Your task to perform on an android device: What's the weather? Image 0: 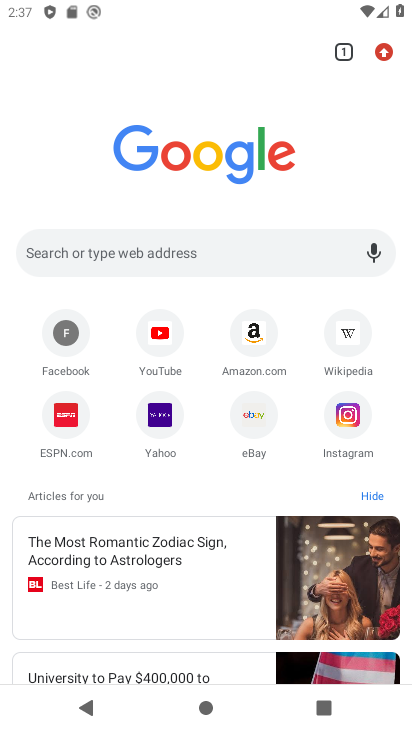
Step 0: click (382, 57)
Your task to perform on an android device: What's the weather? Image 1: 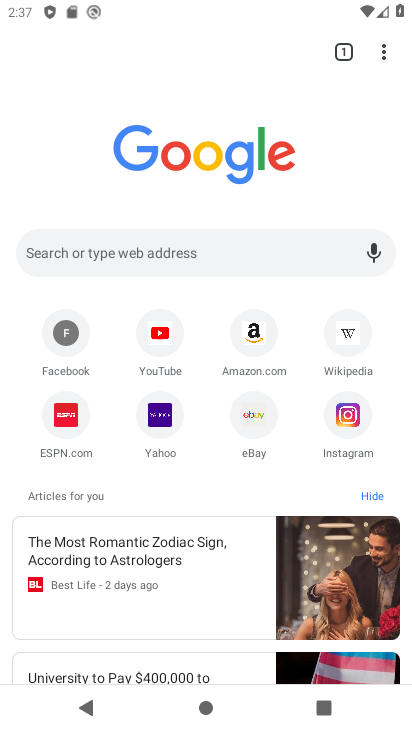
Step 1: click (383, 57)
Your task to perform on an android device: What's the weather? Image 2: 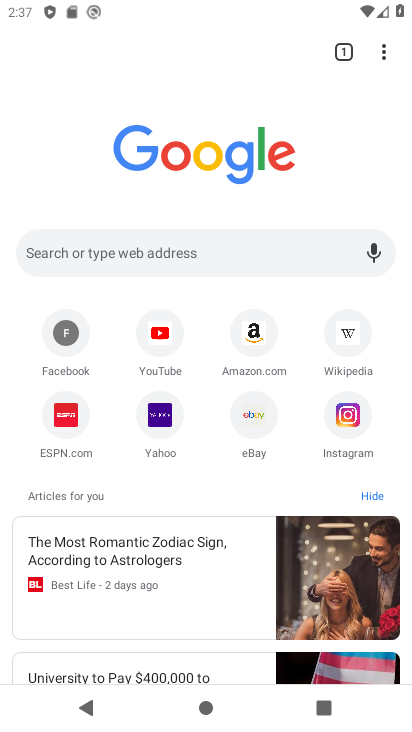
Step 2: click (189, 243)
Your task to perform on an android device: What's the weather? Image 3: 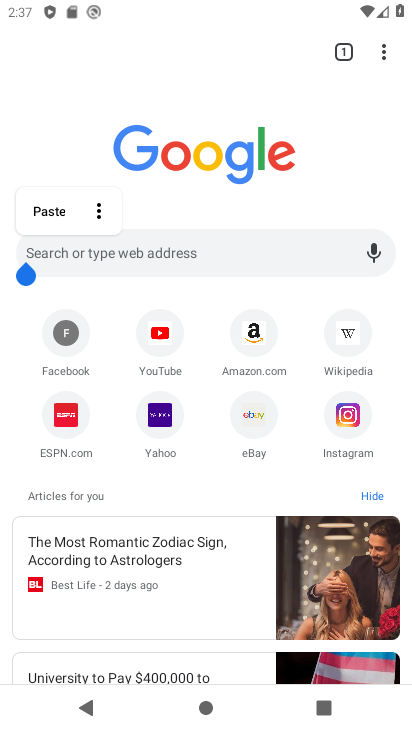
Step 3: click (161, 263)
Your task to perform on an android device: What's the weather? Image 4: 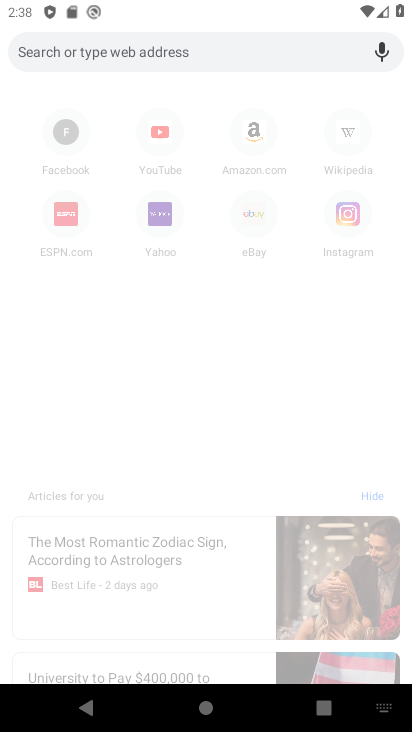
Step 4: type "weather today"
Your task to perform on an android device: What's the weather? Image 5: 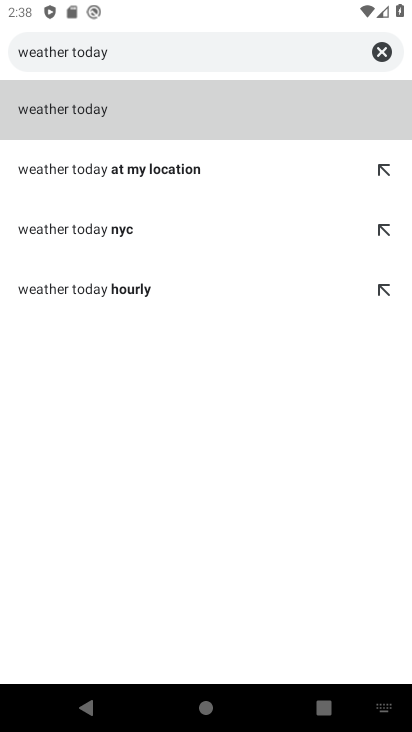
Step 5: click (53, 129)
Your task to perform on an android device: What's the weather? Image 6: 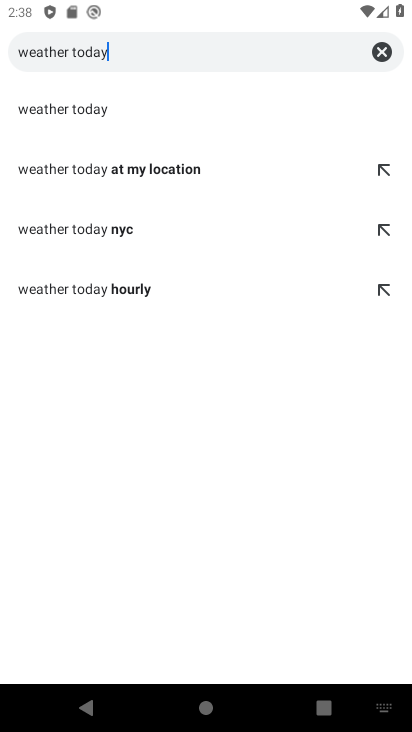
Step 6: click (66, 107)
Your task to perform on an android device: What's the weather? Image 7: 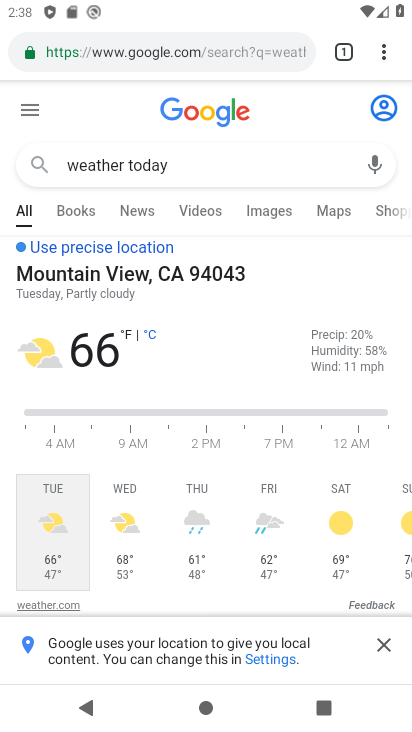
Step 7: task complete